Your task to perform on an android device: remove spam from my inbox in the gmail app Image 0: 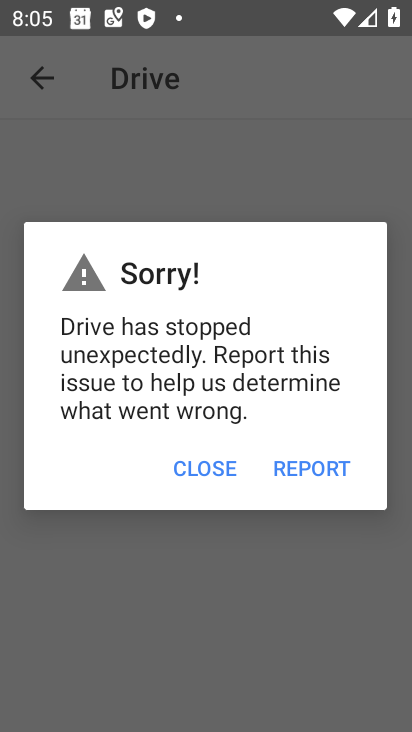
Step 0: click (217, 466)
Your task to perform on an android device: remove spam from my inbox in the gmail app Image 1: 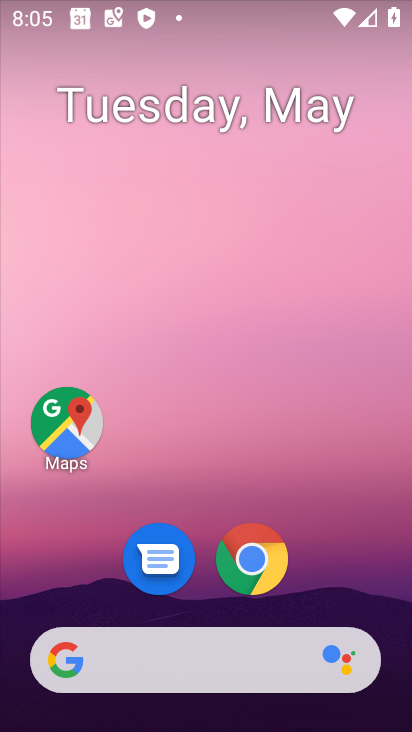
Step 1: drag from (189, 632) to (289, 73)
Your task to perform on an android device: remove spam from my inbox in the gmail app Image 2: 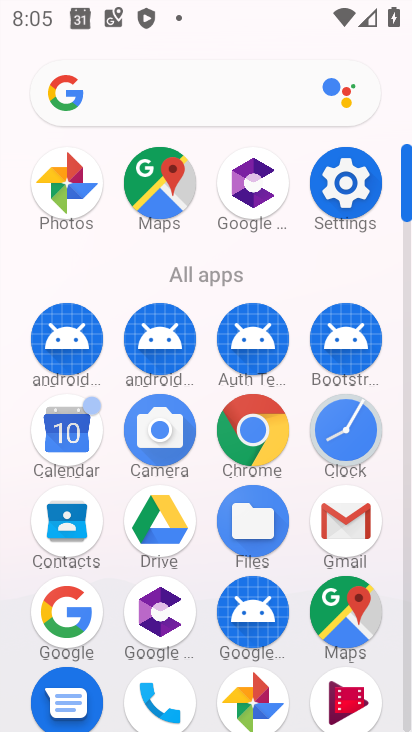
Step 2: click (330, 518)
Your task to perform on an android device: remove spam from my inbox in the gmail app Image 3: 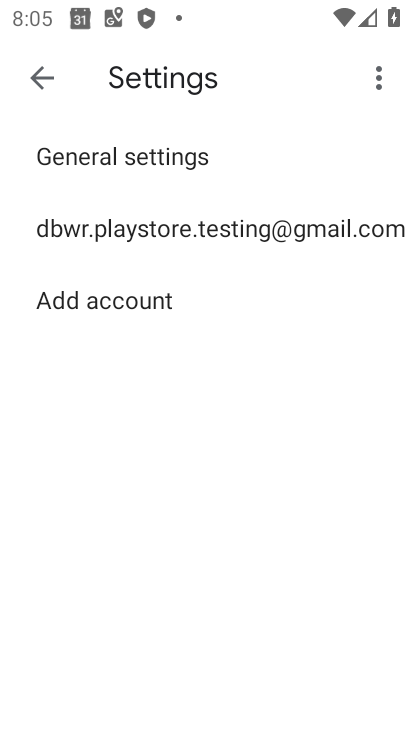
Step 3: click (53, 68)
Your task to perform on an android device: remove spam from my inbox in the gmail app Image 4: 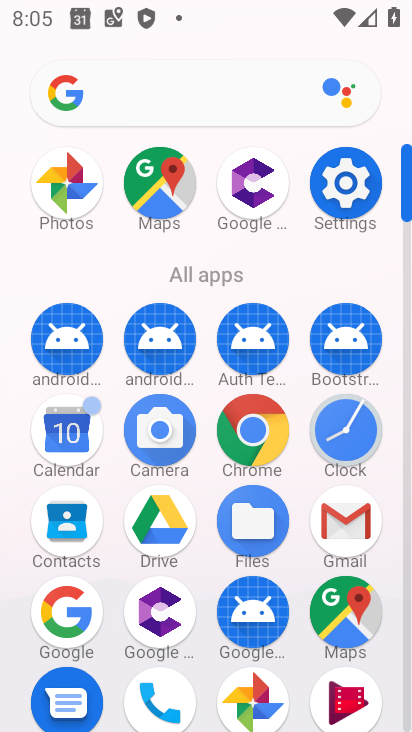
Step 4: click (333, 519)
Your task to perform on an android device: remove spam from my inbox in the gmail app Image 5: 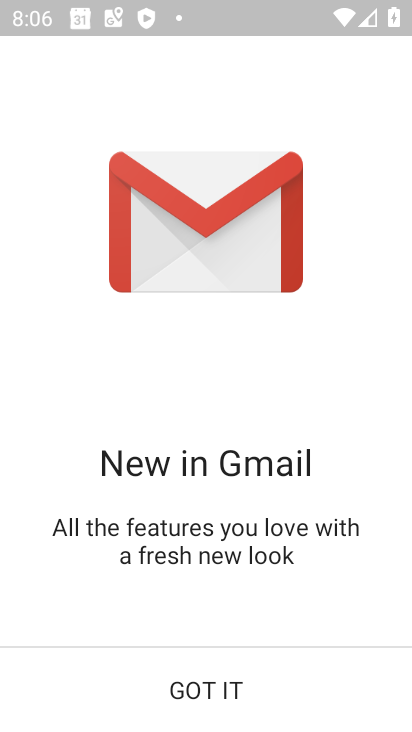
Step 5: click (225, 676)
Your task to perform on an android device: remove spam from my inbox in the gmail app Image 6: 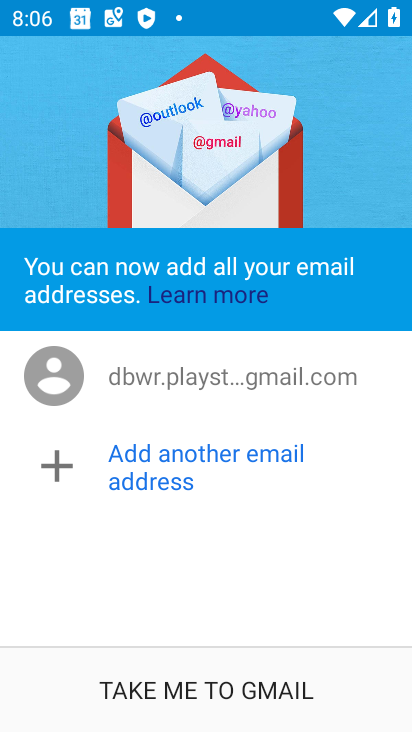
Step 6: click (210, 671)
Your task to perform on an android device: remove spam from my inbox in the gmail app Image 7: 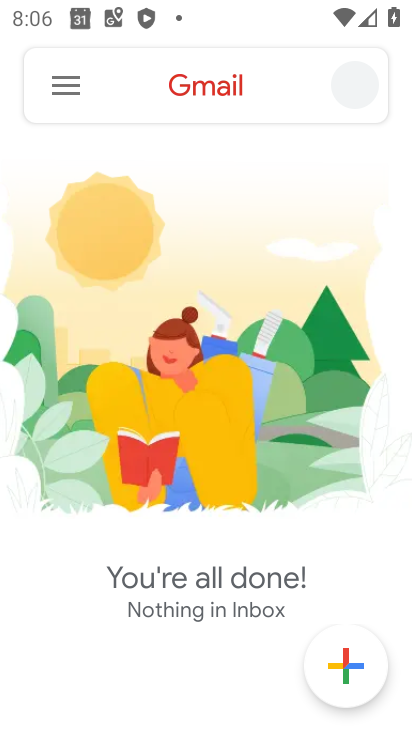
Step 7: click (72, 78)
Your task to perform on an android device: remove spam from my inbox in the gmail app Image 8: 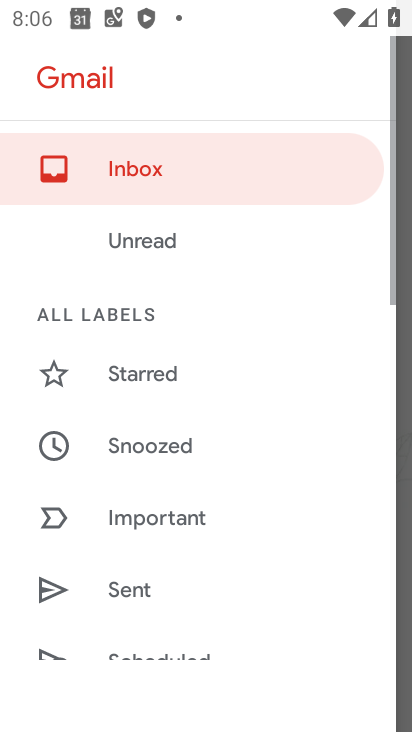
Step 8: drag from (165, 586) to (248, 134)
Your task to perform on an android device: remove spam from my inbox in the gmail app Image 9: 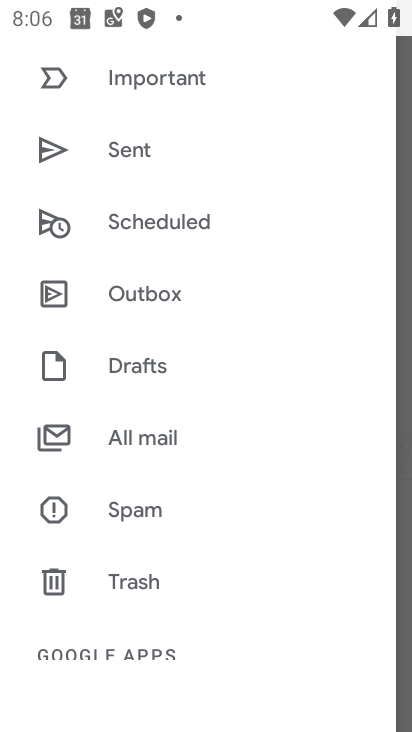
Step 9: click (169, 508)
Your task to perform on an android device: remove spam from my inbox in the gmail app Image 10: 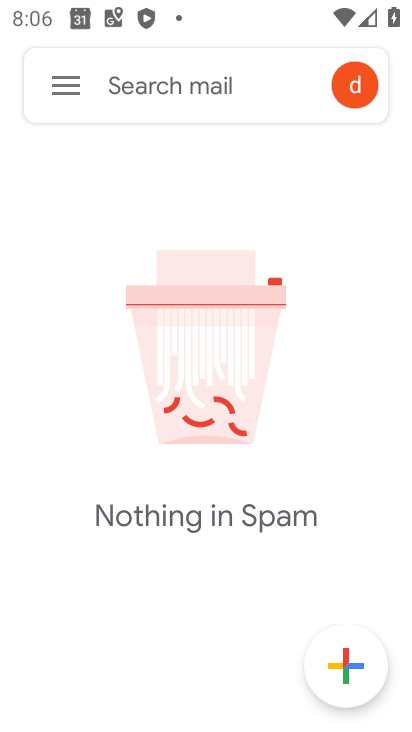
Step 10: task complete